Your task to perform on an android device: move an email to a new category in the gmail app Image 0: 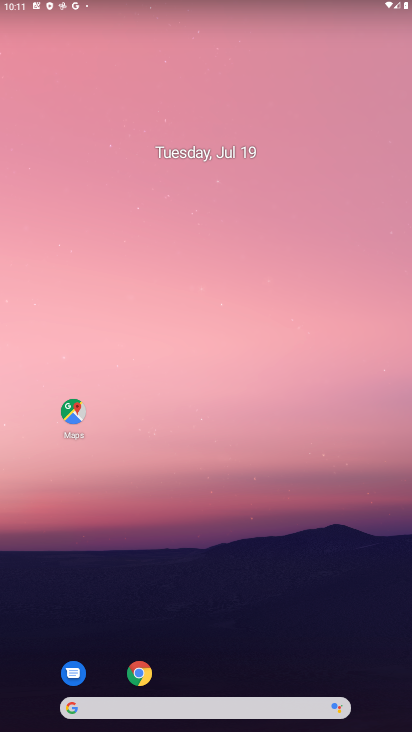
Step 0: drag from (229, 670) to (228, 267)
Your task to perform on an android device: move an email to a new category in the gmail app Image 1: 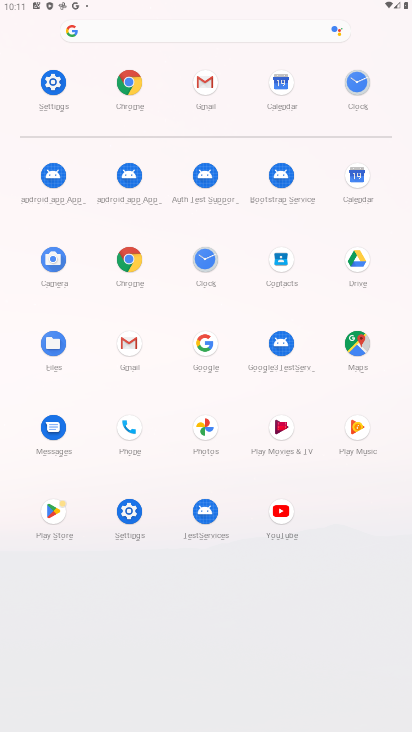
Step 1: click (214, 78)
Your task to perform on an android device: move an email to a new category in the gmail app Image 2: 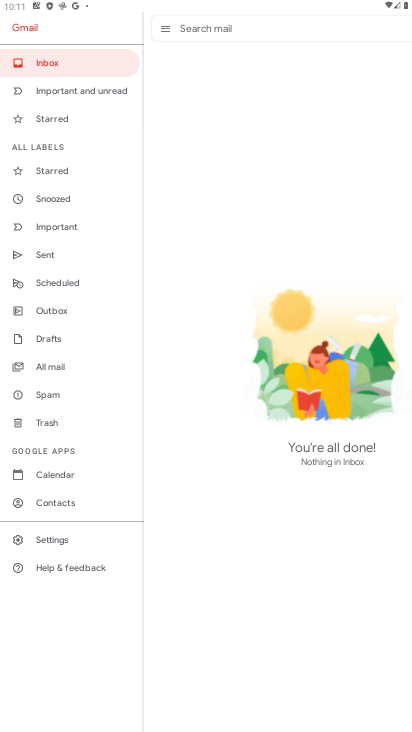
Step 2: click (72, 364)
Your task to perform on an android device: move an email to a new category in the gmail app Image 3: 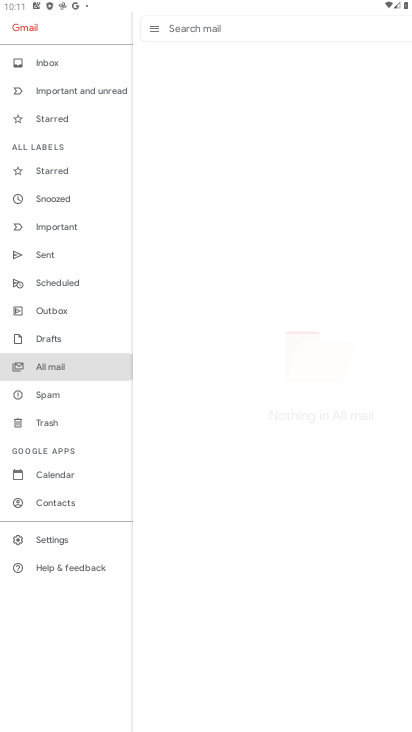
Step 3: task complete